Your task to perform on an android device: Show me the alarms in the clock app Image 0: 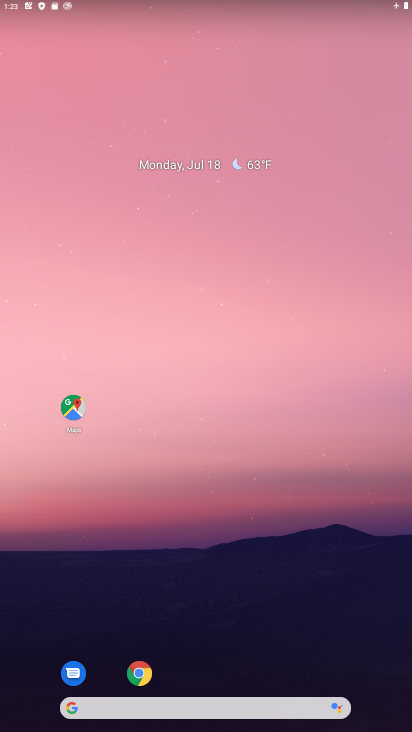
Step 0: drag from (245, 702) to (224, 444)
Your task to perform on an android device: Show me the alarms in the clock app Image 1: 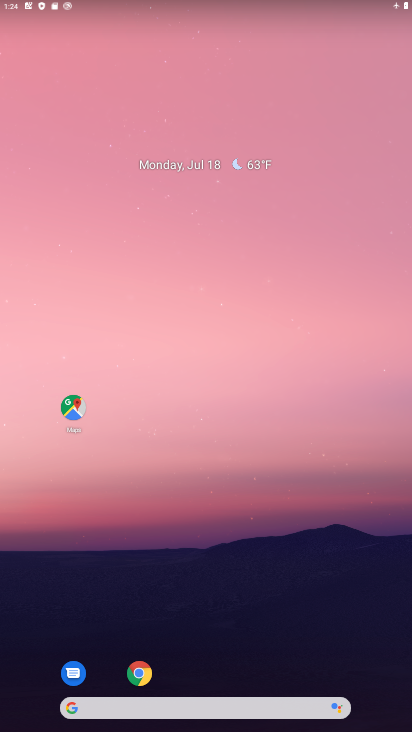
Step 1: drag from (248, 710) to (281, 334)
Your task to perform on an android device: Show me the alarms in the clock app Image 2: 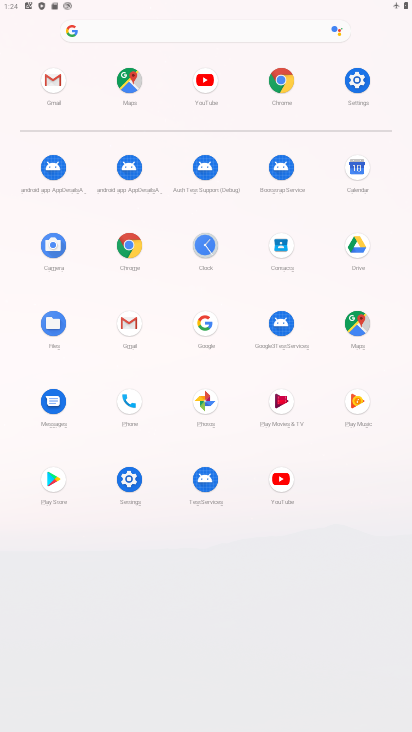
Step 2: click (202, 246)
Your task to perform on an android device: Show me the alarms in the clock app Image 3: 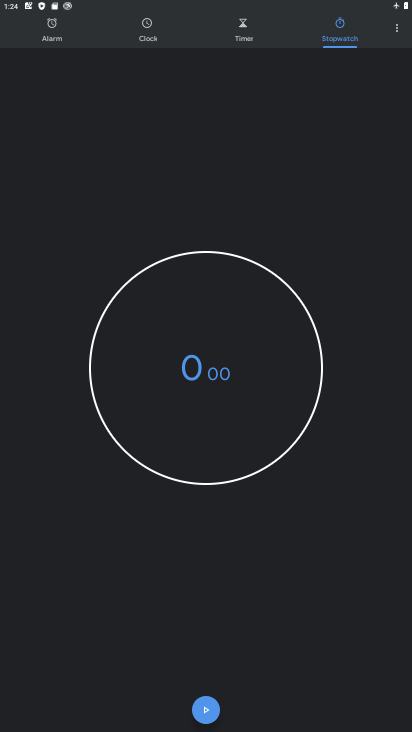
Step 3: click (66, 24)
Your task to perform on an android device: Show me the alarms in the clock app Image 4: 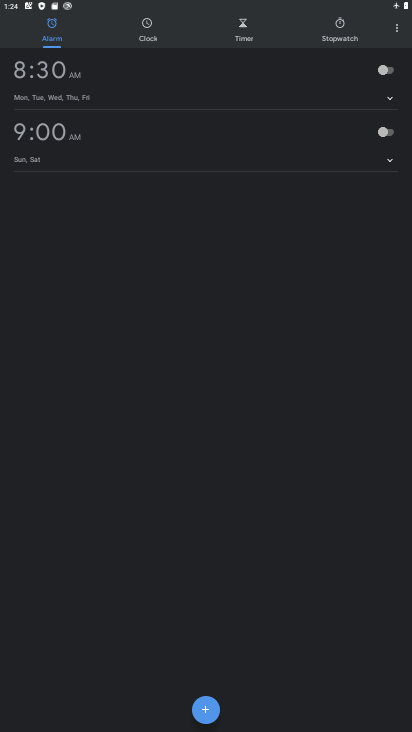
Step 4: task complete